Your task to perform on an android device: What's the weather today? Image 0: 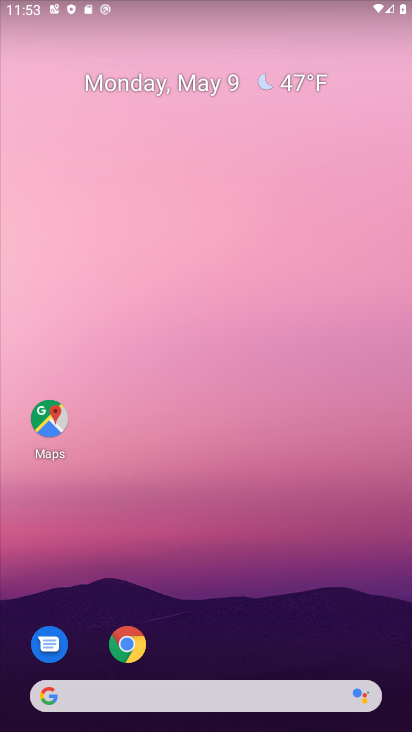
Step 0: click (186, 702)
Your task to perform on an android device: What's the weather today? Image 1: 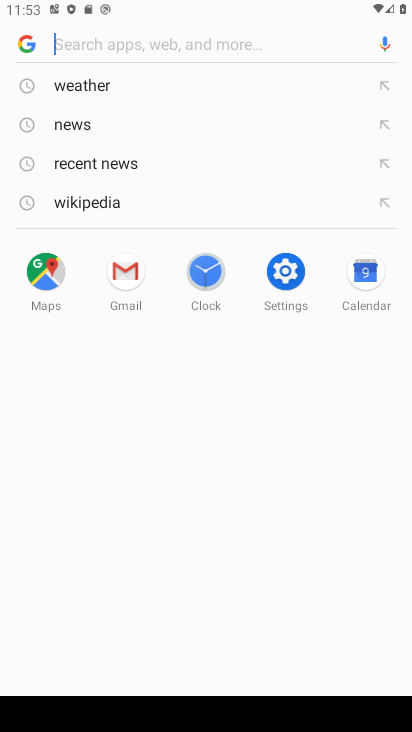
Step 1: click (83, 89)
Your task to perform on an android device: What's the weather today? Image 2: 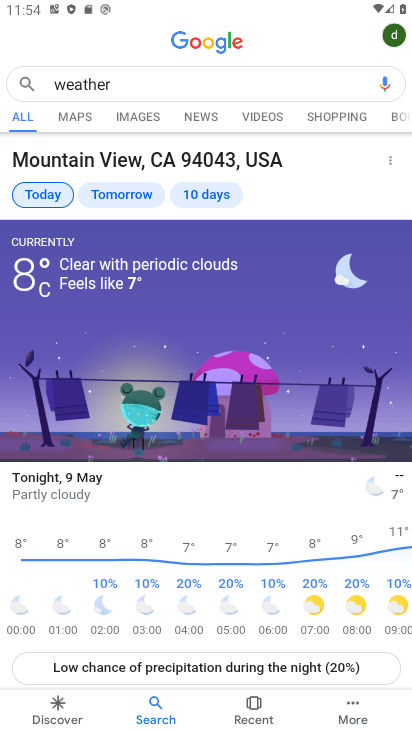
Step 2: task complete